Your task to perform on an android device: Empty the shopping cart on newegg. Add razer nari to the cart on newegg, then select checkout. Image 0: 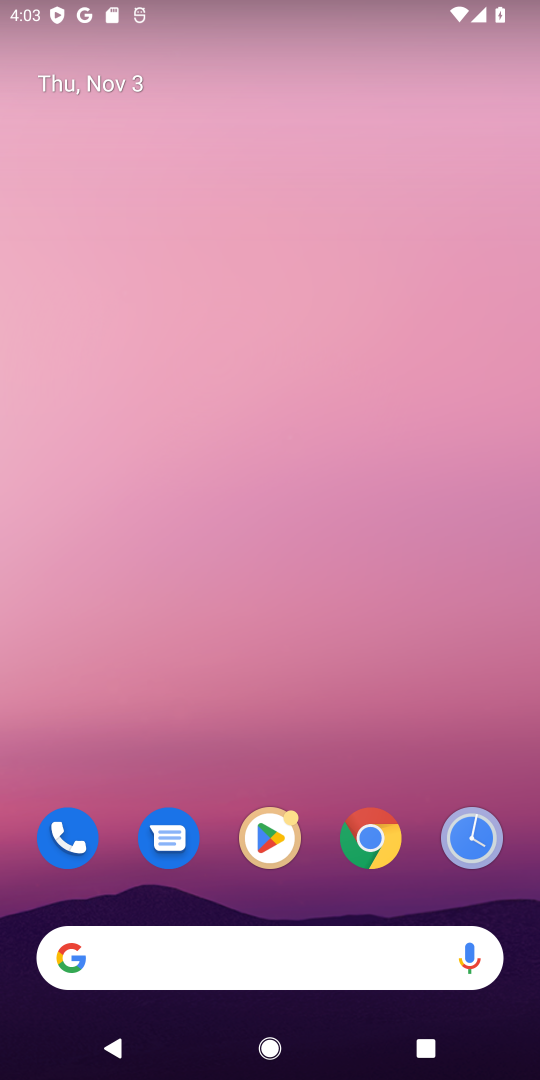
Step 0: click (73, 963)
Your task to perform on an android device: Empty the shopping cart on newegg. Add razer nari to the cart on newegg, then select checkout. Image 1: 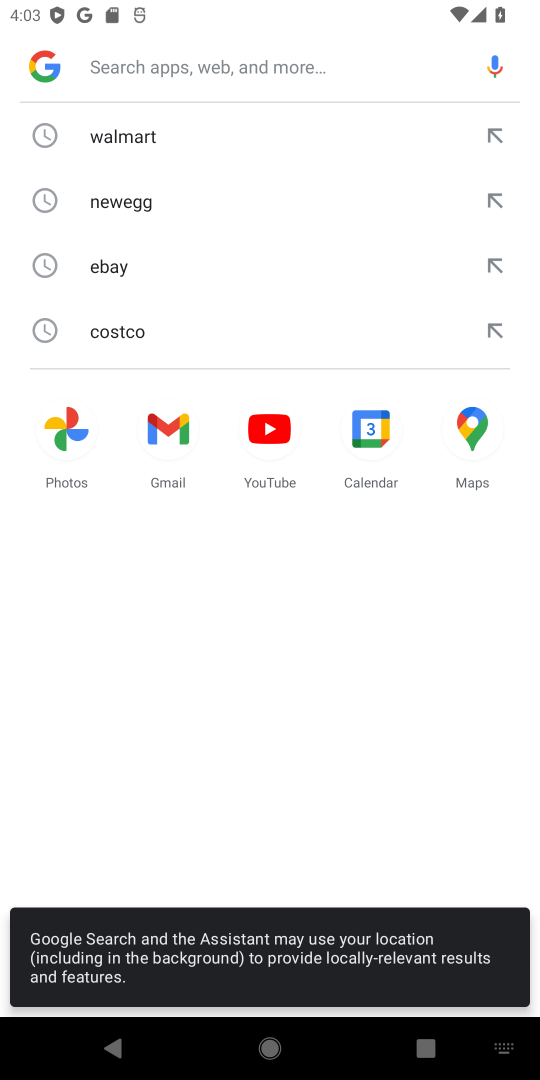
Step 1: click (119, 203)
Your task to perform on an android device: Empty the shopping cart on newegg. Add razer nari to the cart on newegg, then select checkout. Image 2: 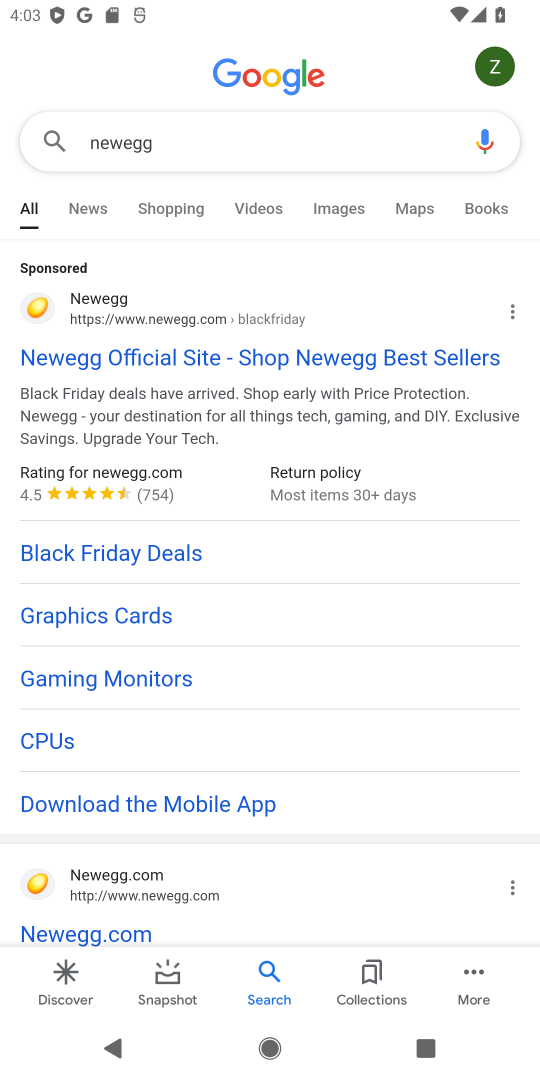
Step 2: click (152, 368)
Your task to perform on an android device: Empty the shopping cart on newegg. Add razer nari to the cart on newegg, then select checkout. Image 3: 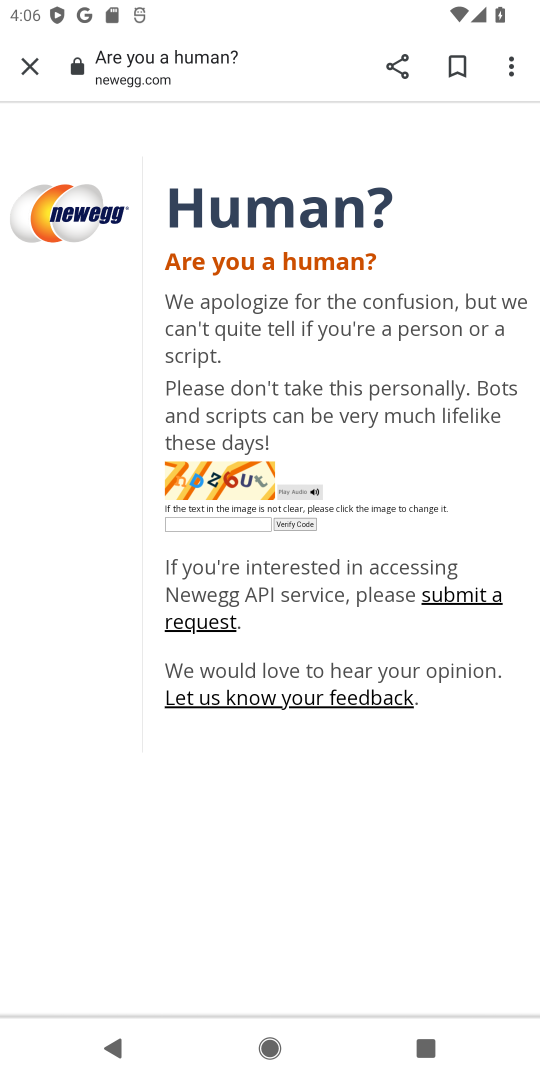
Step 3: task complete